Your task to perform on an android device: Turn on the flashlight Image 0: 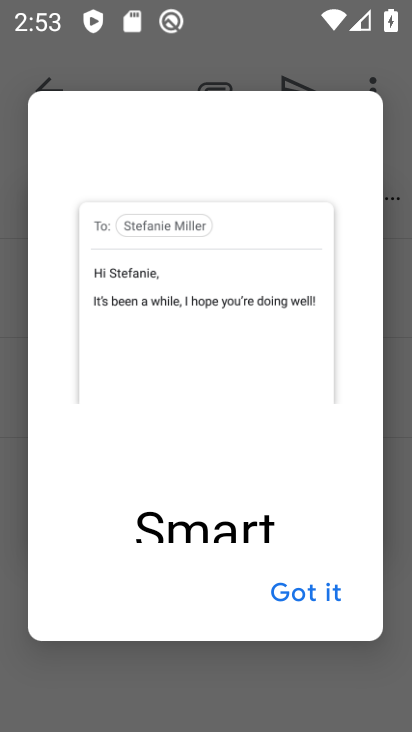
Step 0: press home button
Your task to perform on an android device: Turn on the flashlight Image 1: 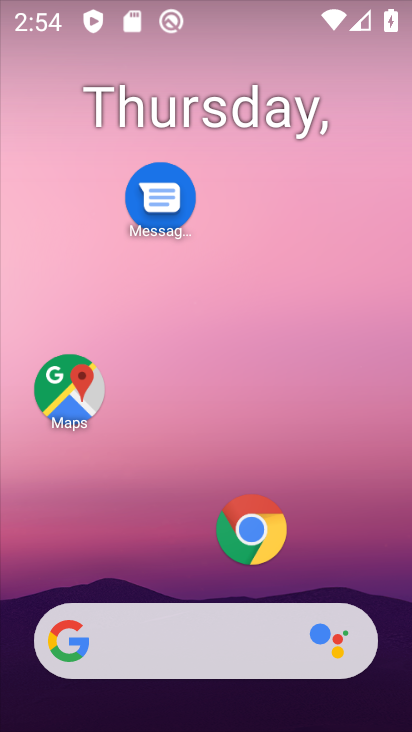
Step 1: drag from (159, 577) to (211, 126)
Your task to perform on an android device: Turn on the flashlight Image 2: 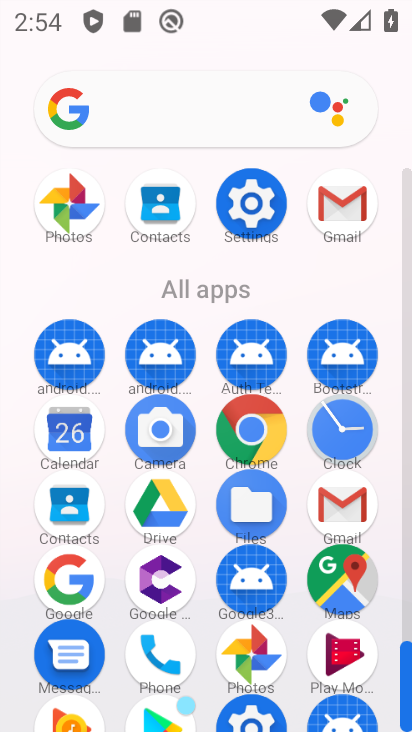
Step 2: click (247, 205)
Your task to perform on an android device: Turn on the flashlight Image 3: 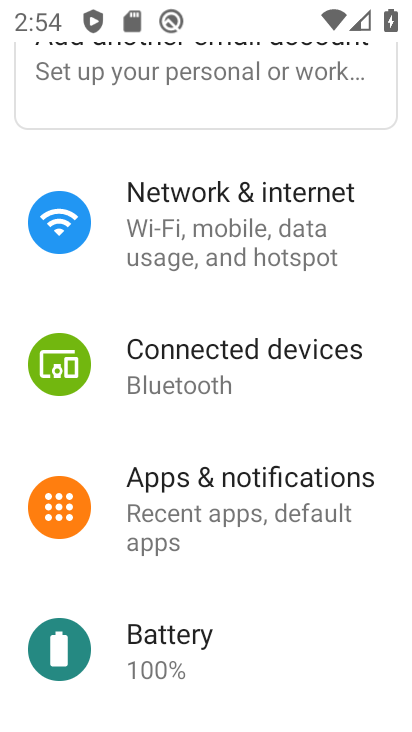
Step 3: drag from (192, 632) to (244, 268)
Your task to perform on an android device: Turn on the flashlight Image 4: 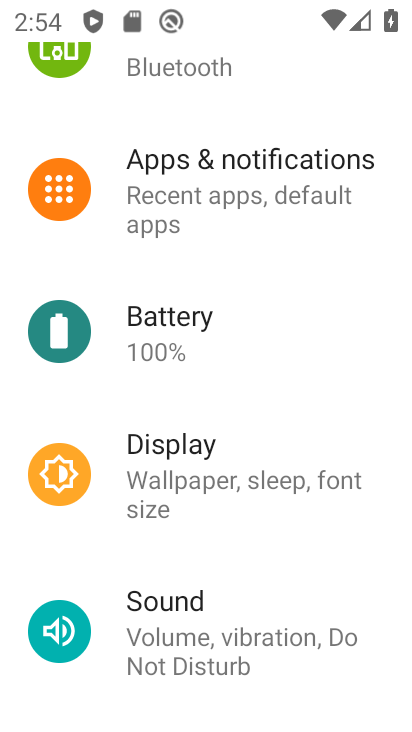
Step 4: click (234, 488)
Your task to perform on an android device: Turn on the flashlight Image 5: 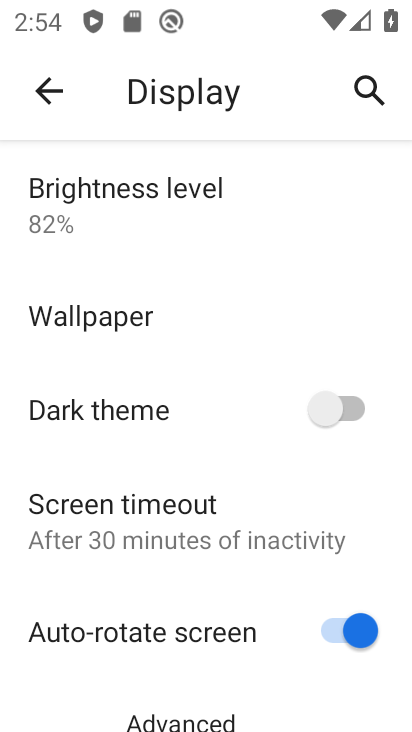
Step 5: task complete